Your task to perform on an android device: refresh tabs in the chrome app Image 0: 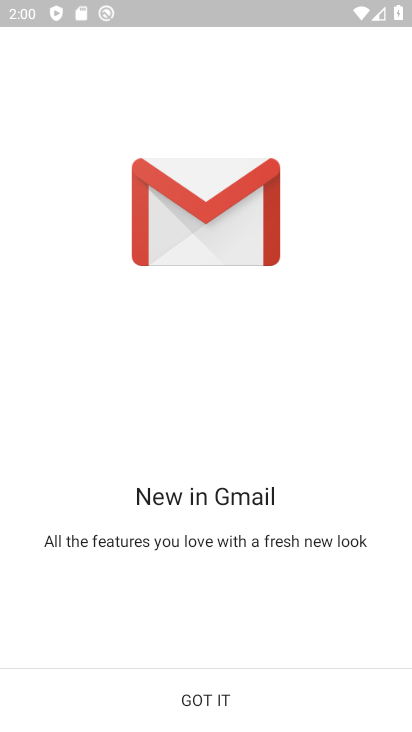
Step 0: click (281, 709)
Your task to perform on an android device: refresh tabs in the chrome app Image 1: 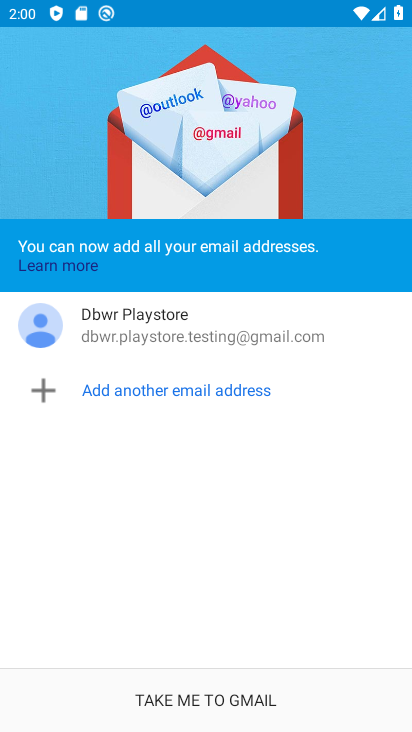
Step 1: press home button
Your task to perform on an android device: refresh tabs in the chrome app Image 2: 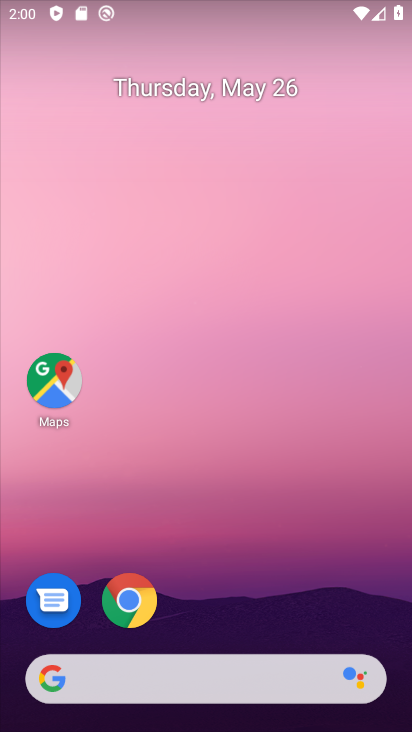
Step 2: click (150, 597)
Your task to perform on an android device: refresh tabs in the chrome app Image 3: 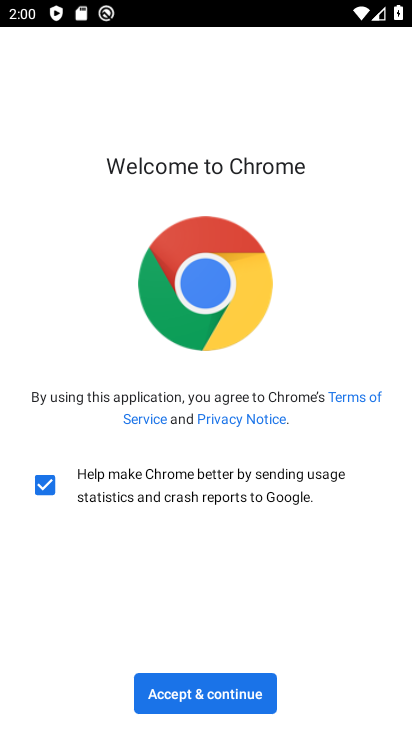
Step 3: click (172, 702)
Your task to perform on an android device: refresh tabs in the chrome app Image 4: 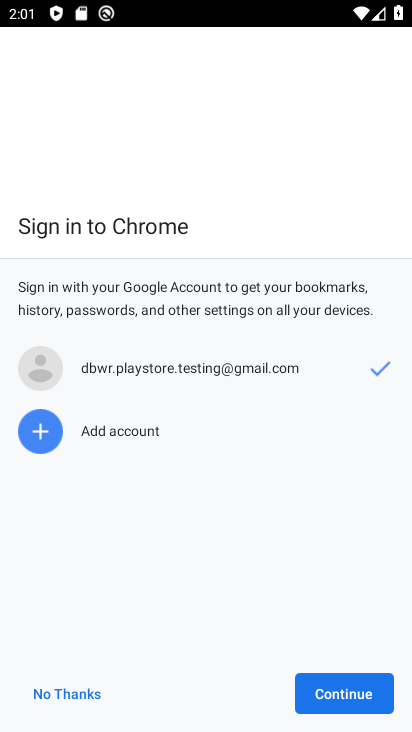
Step 4: click (312, 694)
Your task to perform on an android device: refresh tabs in the chrome app Image 5: 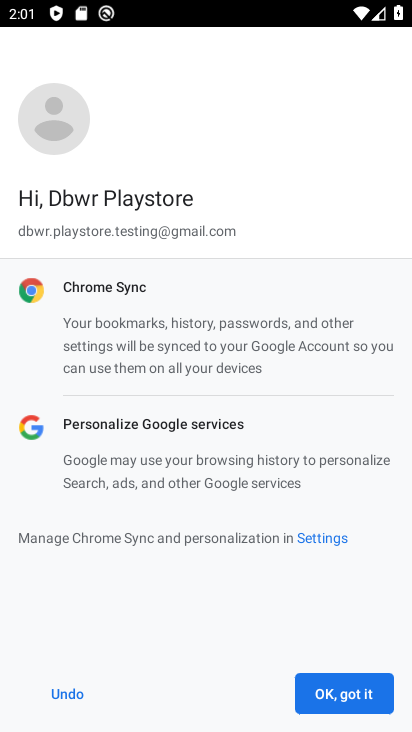
Step 5: click (350, 683)
Your task to perform on an android device: refresh tabs in the chrome app Image 6: 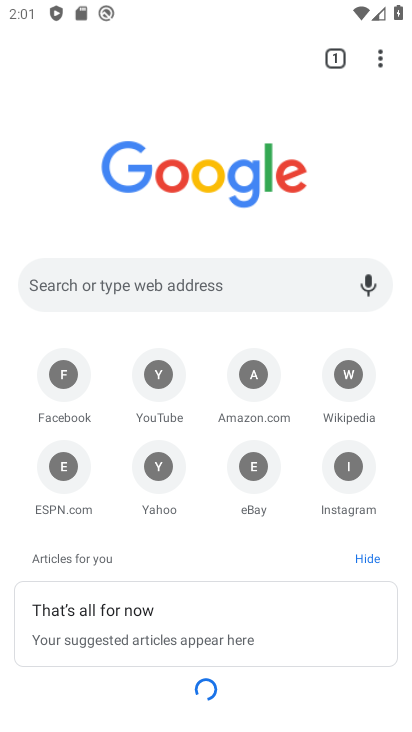
Step 6: click (378, 64)
Your task to perform on an android device: refresh tabs in the chrome app Image 7: 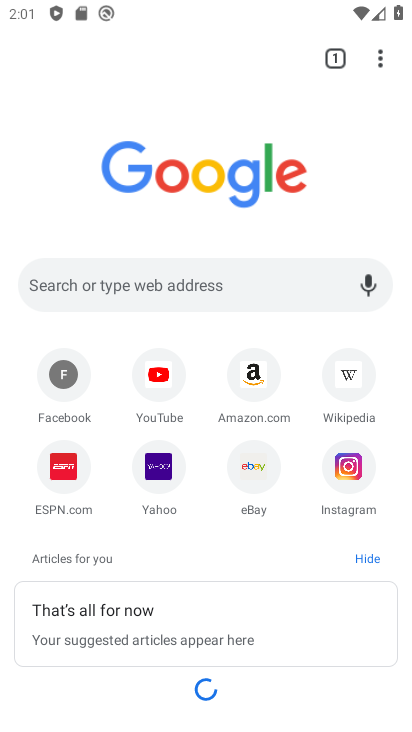
Step 7: click (385, 60)
Your task to perform on an android device: refresh tabs in the chrome app Image 8: 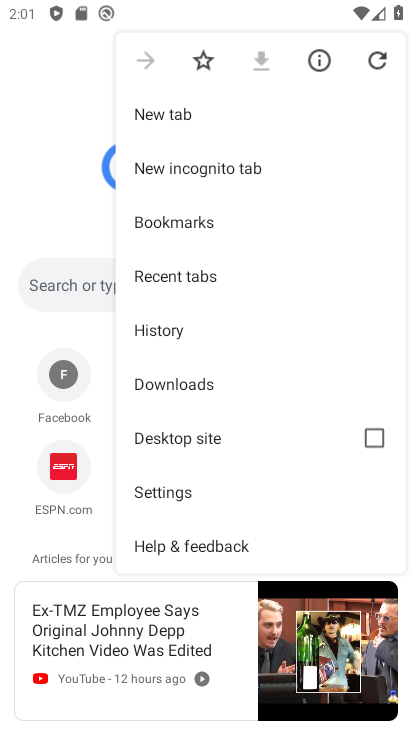
Step 8: click (382, 50)
Your task to perform on an android device: refresh tabs in the chrome app Image 9: 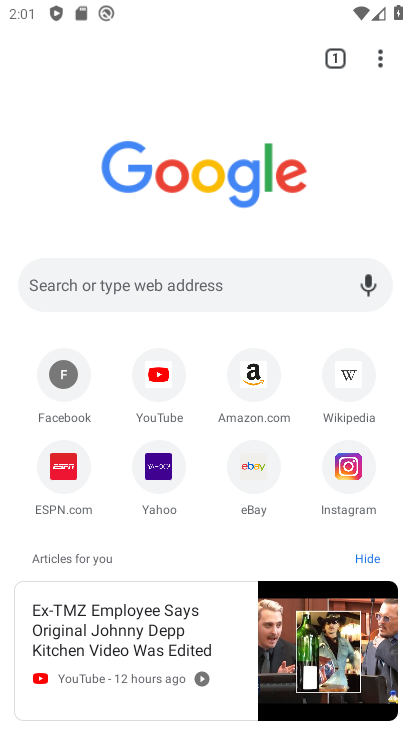
Step 9: task complete